Your task to perform on an android device: change alarm snooze length Image 0: 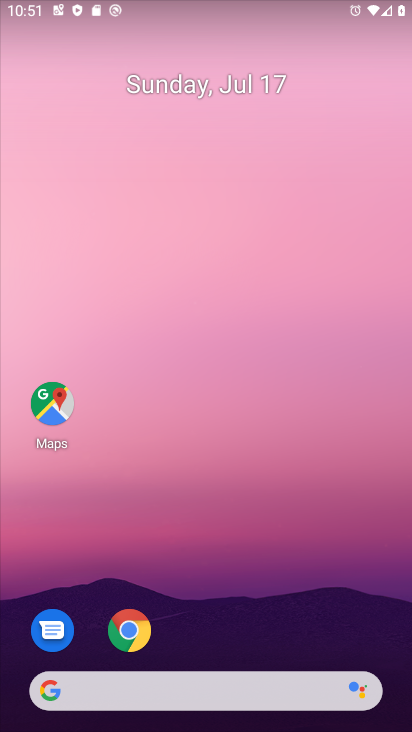
Step 0: drag from (312, 612) to (341, 93)
Your task to perform on an android device: change alarm snooze length Image 1: 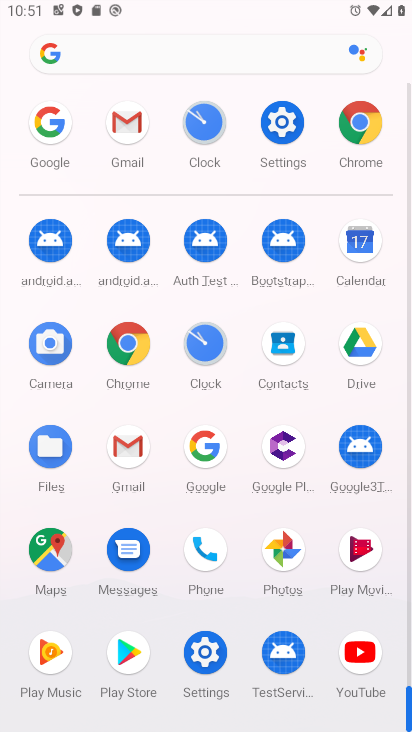
Step 1: click (210, 353)
Your task to perform on an android device: change alarm snooze length Image 2: 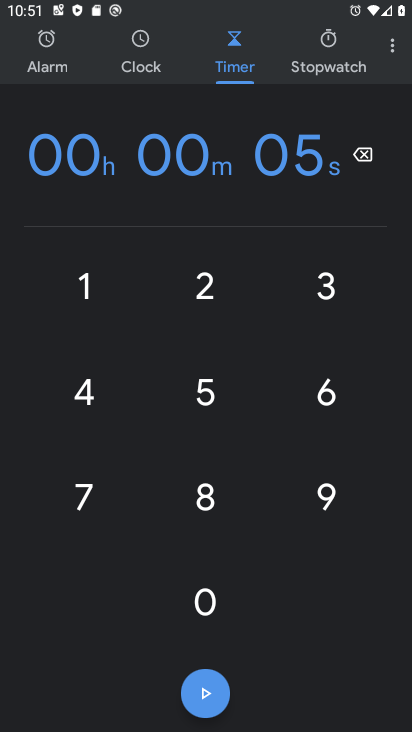
Step 2: click (394, 52)
Your task to perform on an android device: change alarm snooze length Image 3: 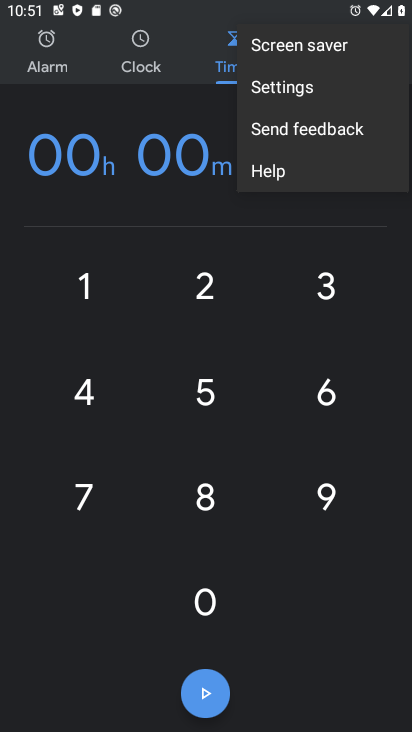
Step 3: click (344, 86)
Your task to perform on an android device: change alarm snooze length Image 4: 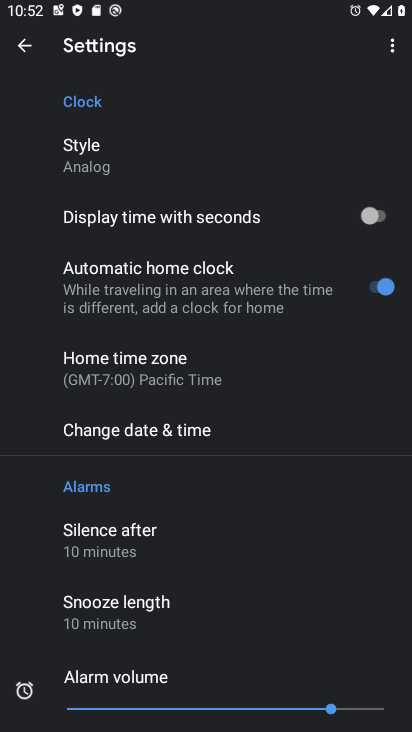
Step 4: drag from (353, 505) to (362, 405)
Your task to perform on an android device: change alarm snooze length Image 5: 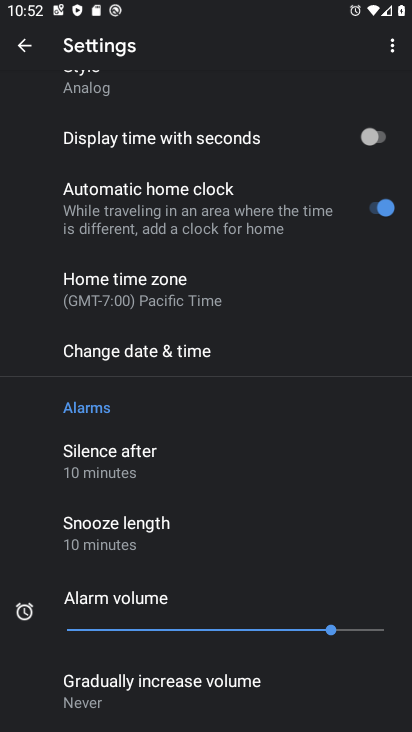
Step 5: drag from (323, 504) to (330, 398)
Your task to perform on an android device: change alarm snooze length Image 6: 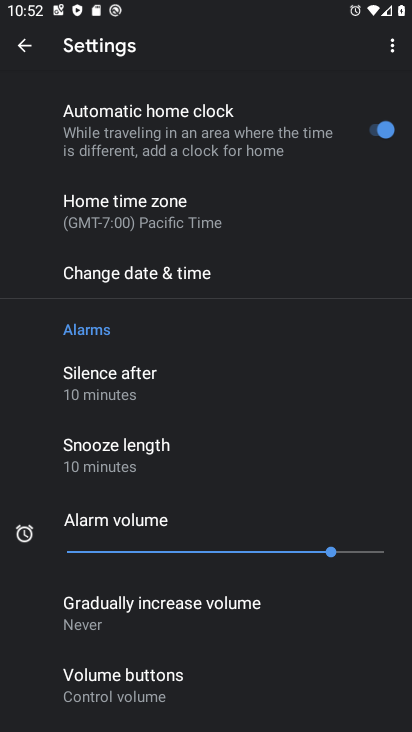
Step 6: drag from (300, 500) to (306, 411)
Your task to perform on an android device: change alarm snooze length Image 7: 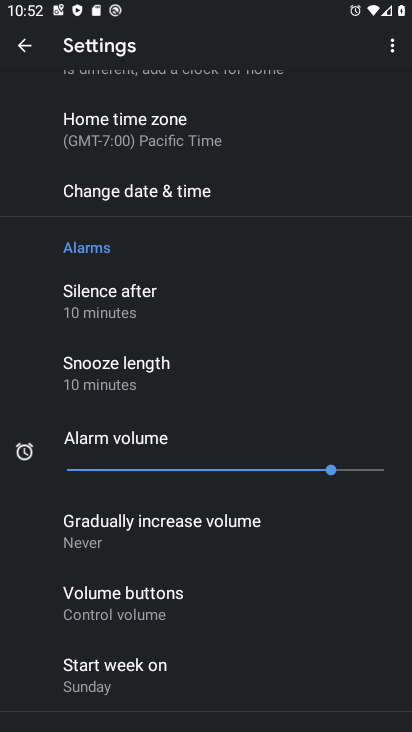
Step 7: drag from (301, 535) to (317, 451)
Your task to perform on an android device: change alarm snooze length Image 8: 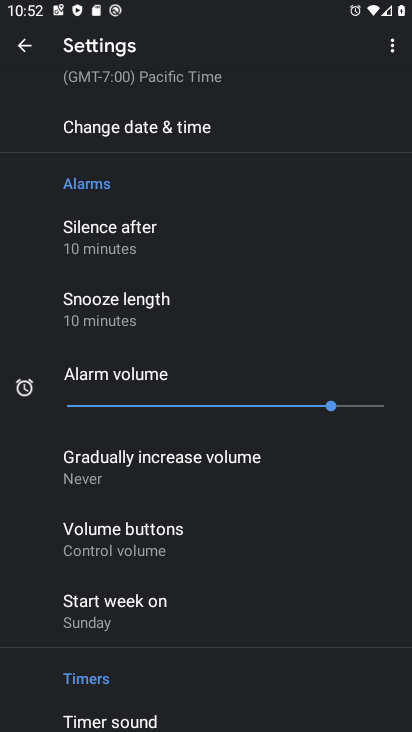
Step 8: drag from (303, 576) to (316, 473)
Your task to perform on an android device: change alarm snooze length Image 9: 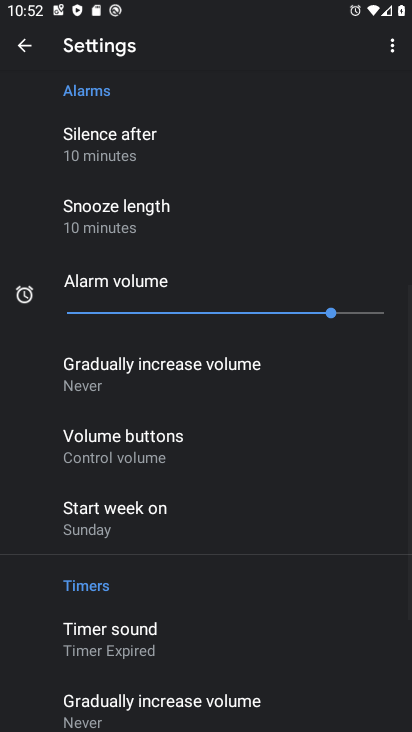
Step 9: drag from (299, 579) to (302, 453)
Your task to perform on an android device: change alarm snooze length Image 10: 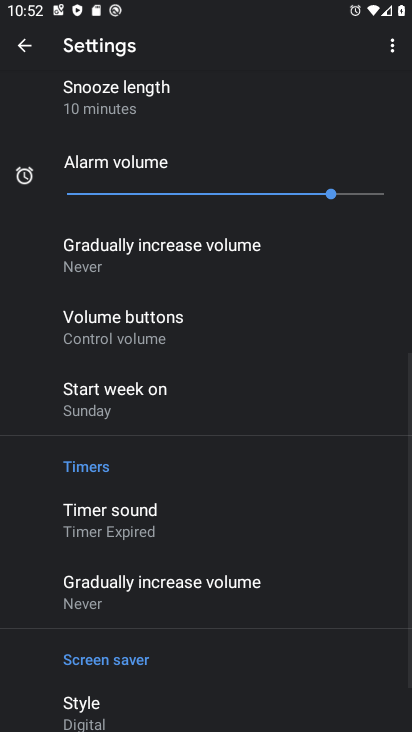
Step 10: drag from (289, 557) to (306, 463)
Your task to perform on an android device: change alarm snooze length Image 11: 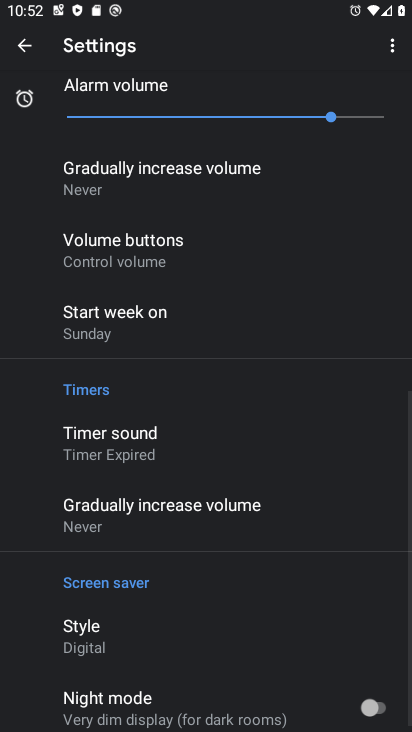
Step 11: drag from (305, 567) to (305, 438)
Your task to perform on an android device: change alarm snooze length Image 12: 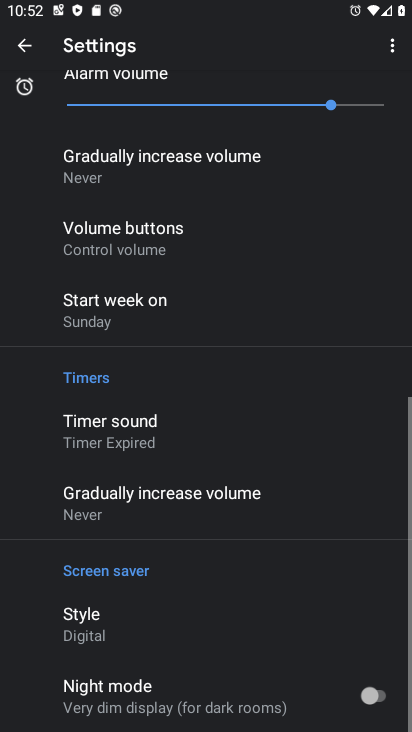
Step 12: drag from (303, 316) to (311, 417)
Your task to perform on an android device: change alarm snooze length Image 13: 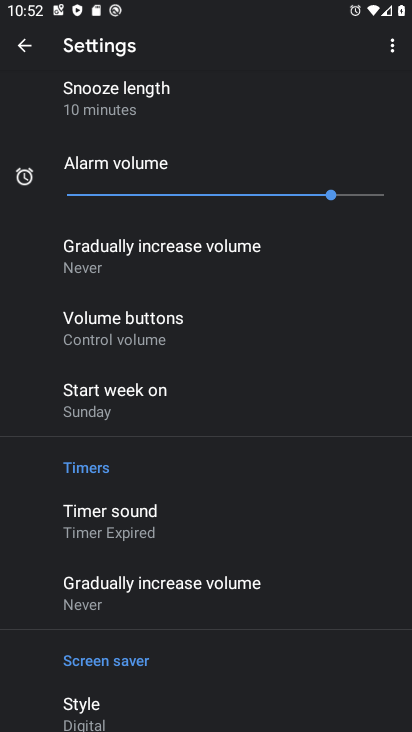
Step 13: drag from (308, 302) to (319, 402)
Your task to perform on an android device: change alarm snooze length Image 14: 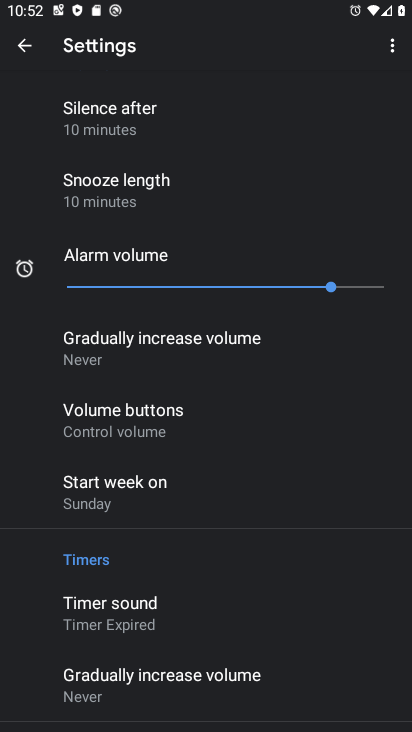
Step 14: drag from (313, 339) to (323, 451)
Your task to perform on an android device: change alarm snooze length Image 15: 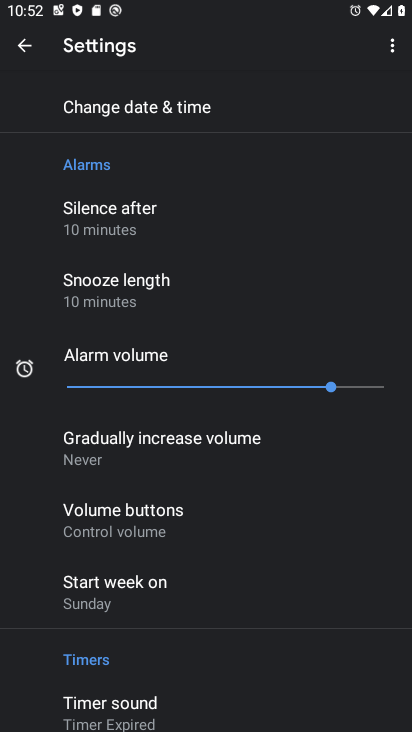
Step 15: drag from (308, 313) to (308, 428)
Your task to perform on an android device: change alarm snooze length Image 16: 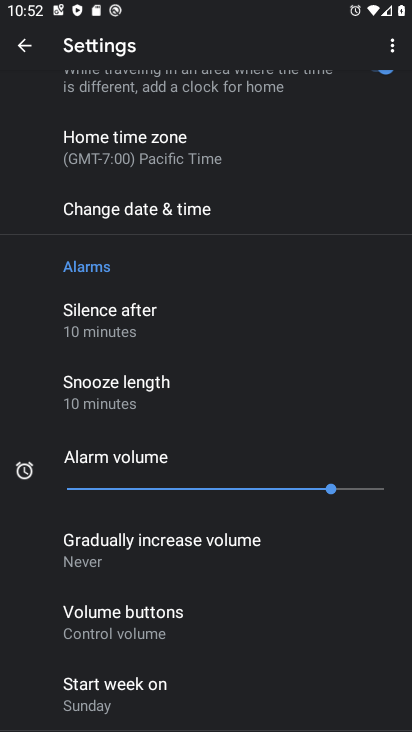
Step 16: click (179, 395)
Your task to perform on an android device: change alarm snooze length Image 17: 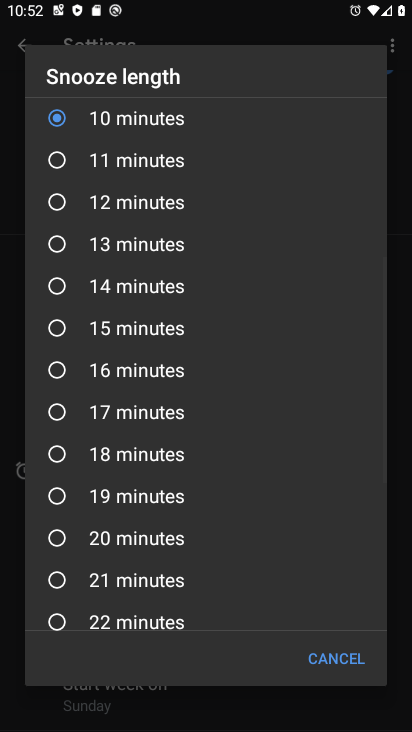
Step 17: click (166, 381)
Your task to perform on an android device: change alarm snooze length Image 18: 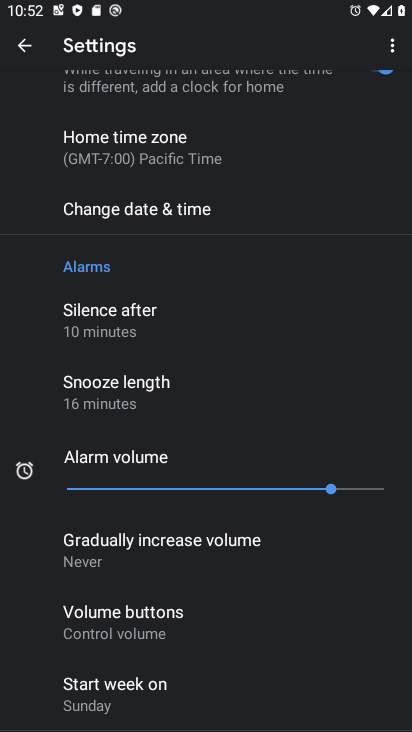
Step 18: task complete